Your task to perform on an android device: move a message to another label in the gmail app Image 0: 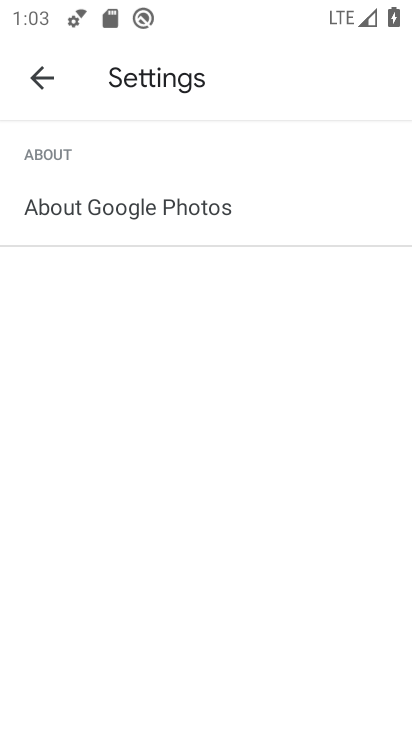
Step 0: press home button
Your task to perform on an android device: move a message to another label in the gmail app Image 1: 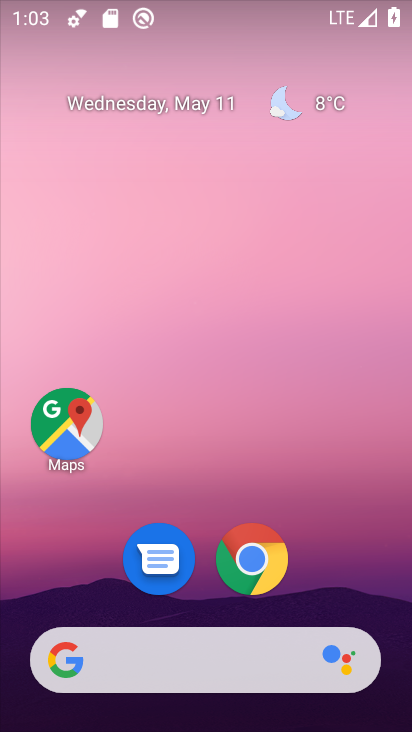
Step 1: drag from (223, 728) to (219, 56)
Your task to perform on an android device: move a message to another label in the gmail app Image 2: 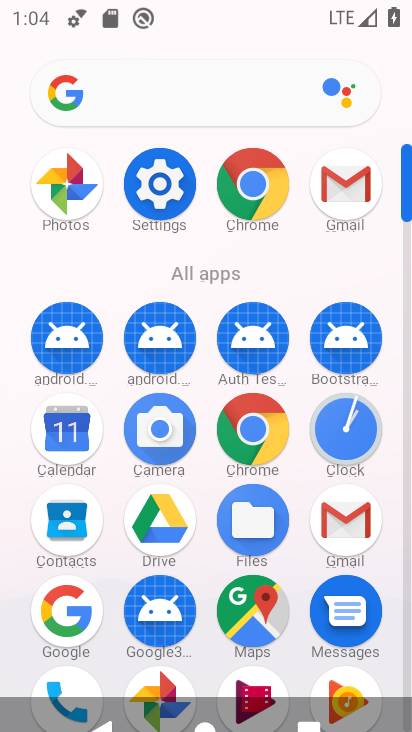
Step 2: click (336, 193)
Your task to perform on an android device: move a message to another label in the gmail app Image 3: 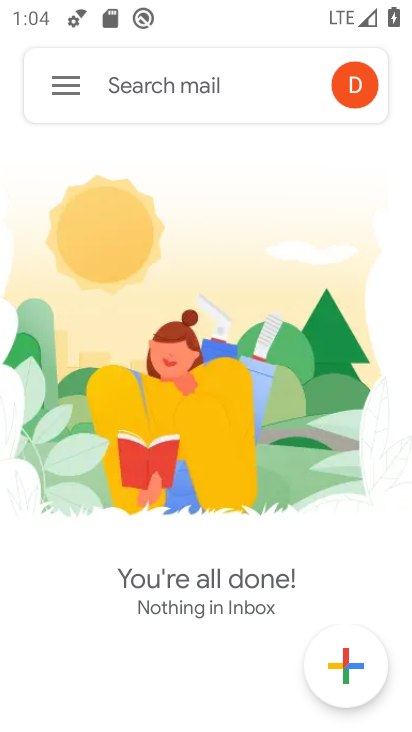
Step 3: task complete